Your task to perform on an android device: toggle data saver in the chrome app Image 0: 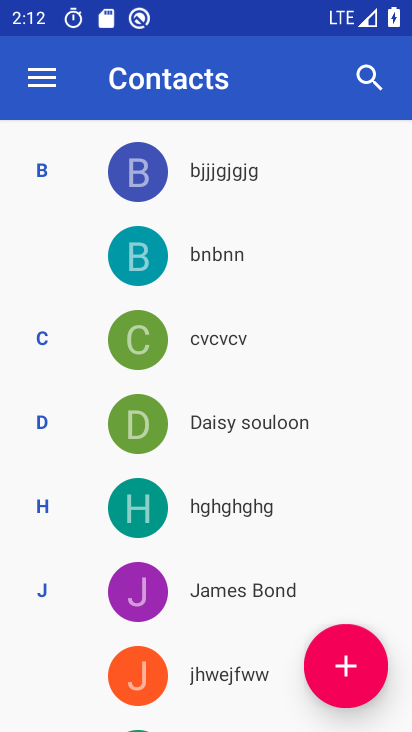
Step 0: press home button
Your task to perform on an android device: toggle data saver in the chrome app Image 1: 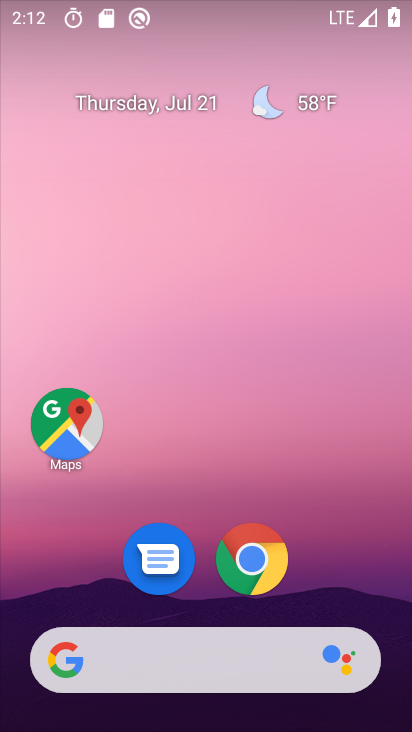
Step 1: drag from (347, 595) to (386, 118)
Your task to perform on an android device: toggle data saver in the chrome app Image 2: 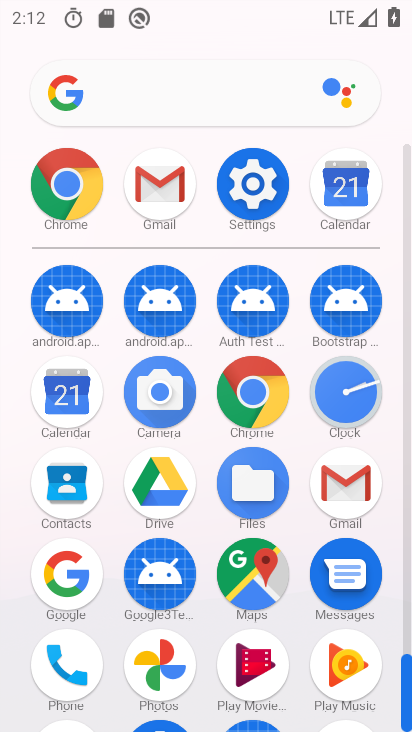
Step 2: click (267, 387)
Your task to perform on an android device: toggle data saver in the chrome app Image 3: 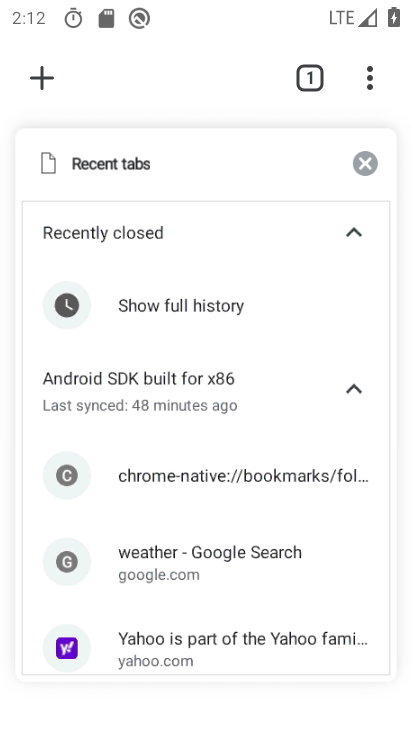
Step 3: press back button
Your task to perform on an android device: toggle data saver in the chrome app Image 4: 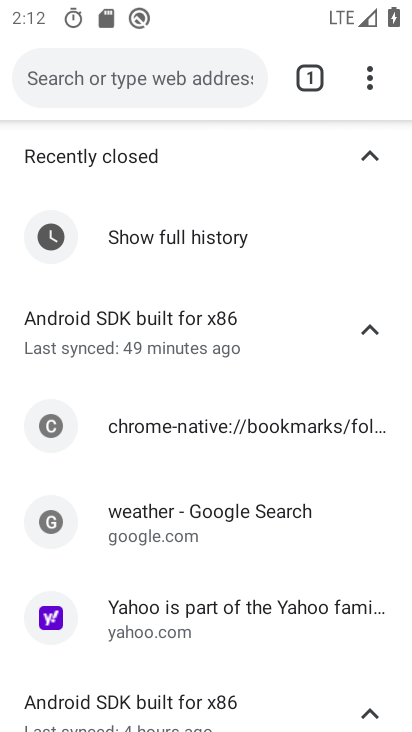
Step 4: click (369, 87)
Your task to perform on an android device: toggle data saver in the chrome app Image 5: 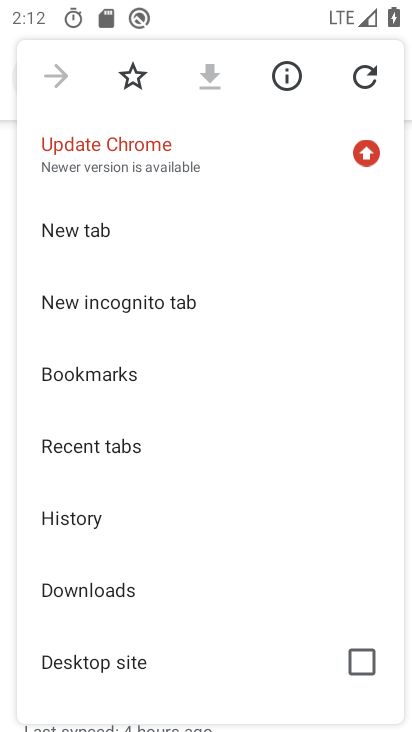
Step 5: drag from (287, 390) to (291, 273)
Your task to perform on an android device: toggle data saver in the chrome app Image 6: 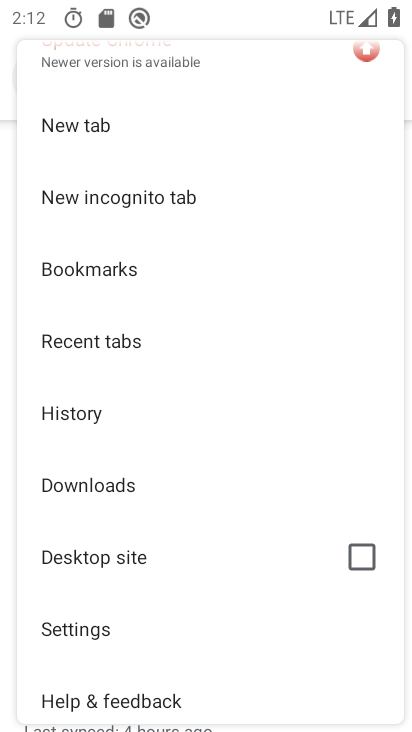
Step 6: drag from (292, 397) to (295, 283)
Your task to perform on an android device: toggle data saver in the chrome app Image 7: 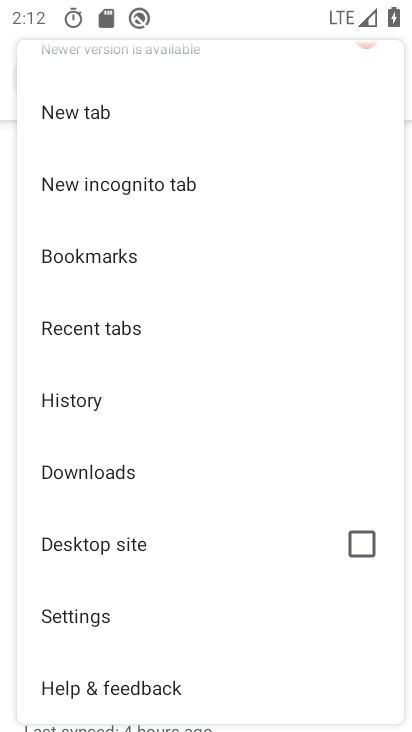
Step 7: click (142, 619)
Your task to perform on an android device: toggle data saver in the chrome app Image 8: 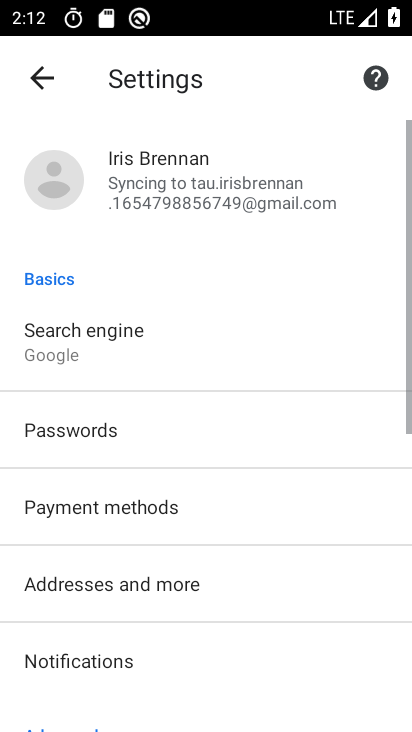
Step 8: drag from (262, 542) to (282, 430)
Your task to perform on an android device: toggle data saver in the chrome app Image 9: 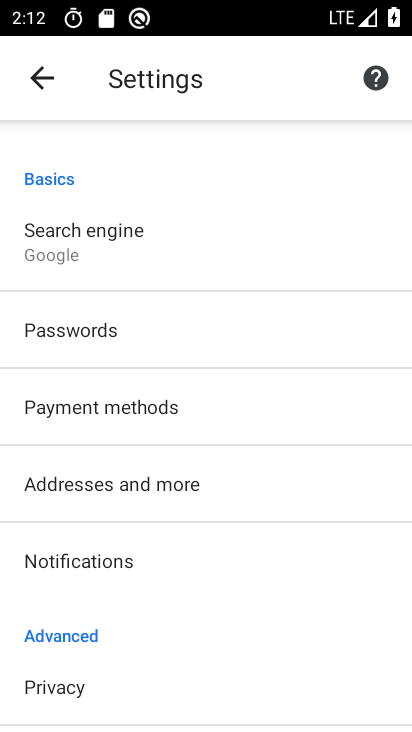
Step 9: drag from (282, 539) to (299, 431)
Your task to perform on an android device: toggle data saver in the chrome app Image 10: 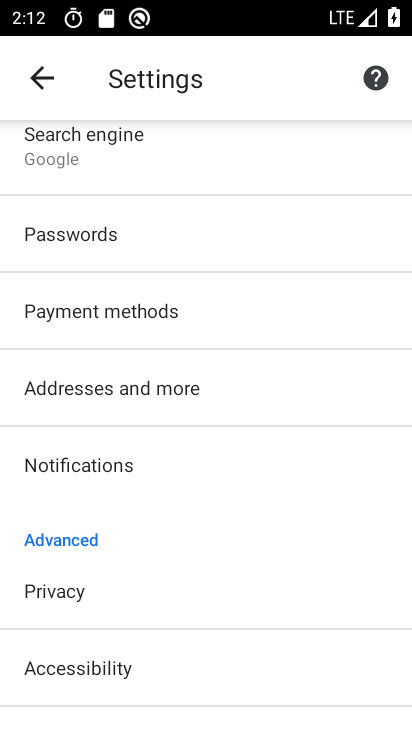
Step 10: drag from (295, 543) to (299, 468)
Your task to perform on an android device: toggle data saver in the chrome app Image 11: 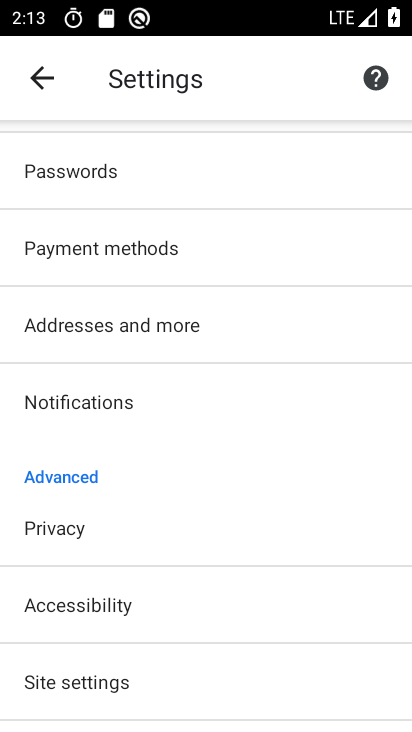
Step 11: drag from (288, 570) to (294, 483)
Your task to perform on an android device: toggle data saver in the chrome app Image 12: 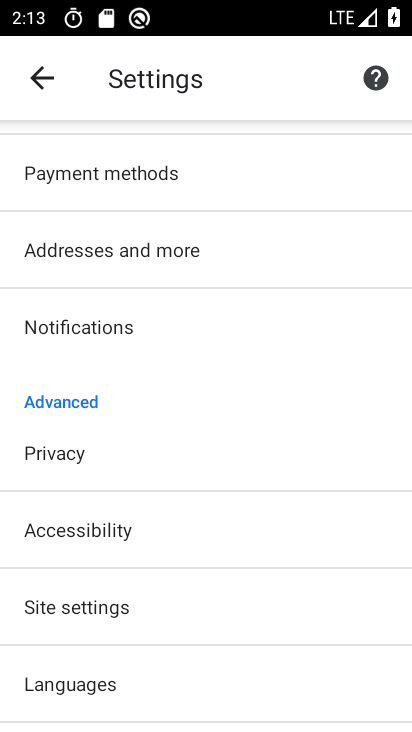
Step 12: drag from (291, 569) to (287, 477)
Your task to perform on an android device: toggle data saver in the chrome app Image 13: 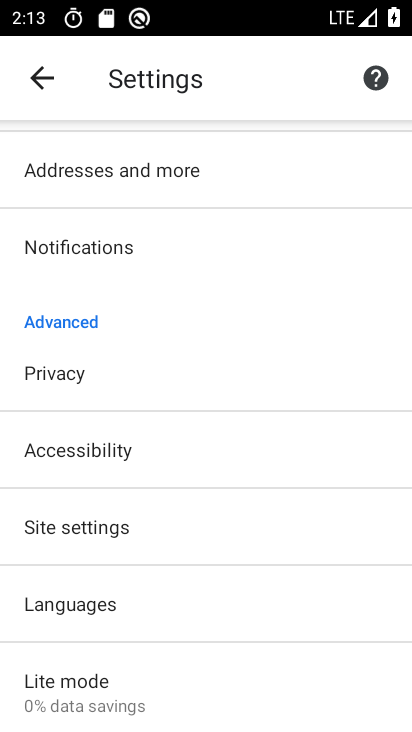
Step 13: drag from (277, 591) to (280, 427)
Your task to perform on an android device: toggle data saver in the chrome app Image 14: 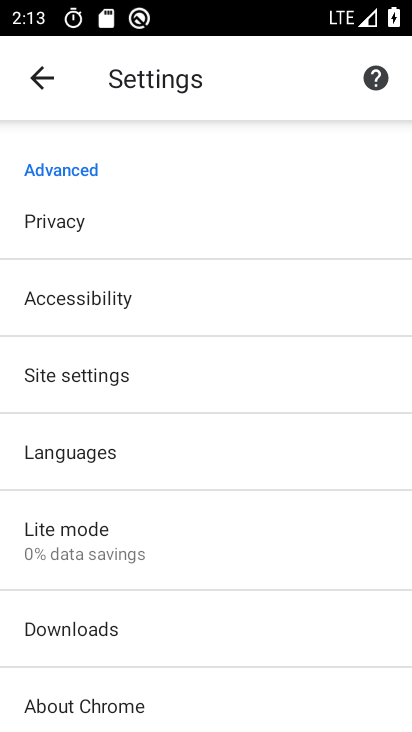
Step 14: drag from (278, 577) to (280, 468)
Your task to perform on an android device: toggle data saver in the chrome app Image 15: 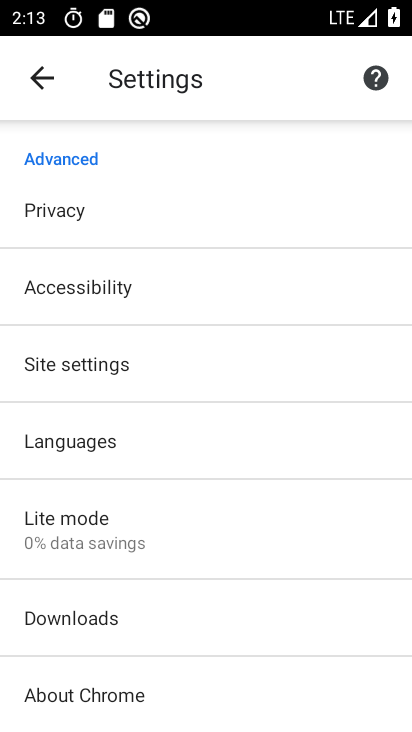
Step 15: click (273, 539)
Your task to perform on an android device: toggle data saver in the chrome app Image 16: 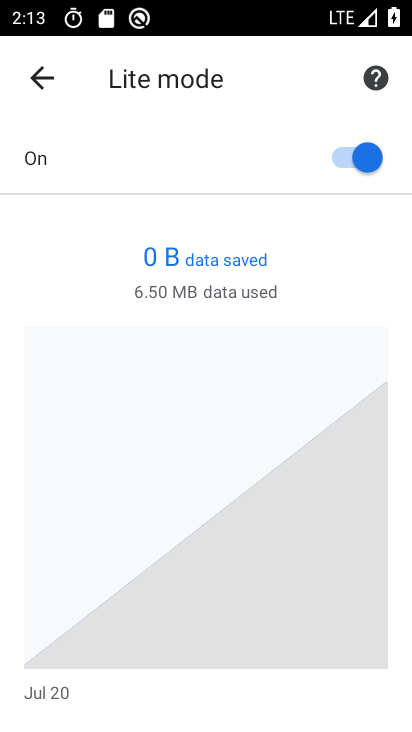
Step 16: click (369, 167)
Your task to perform on an android device: toggle data saver in the chrome app Image 17: 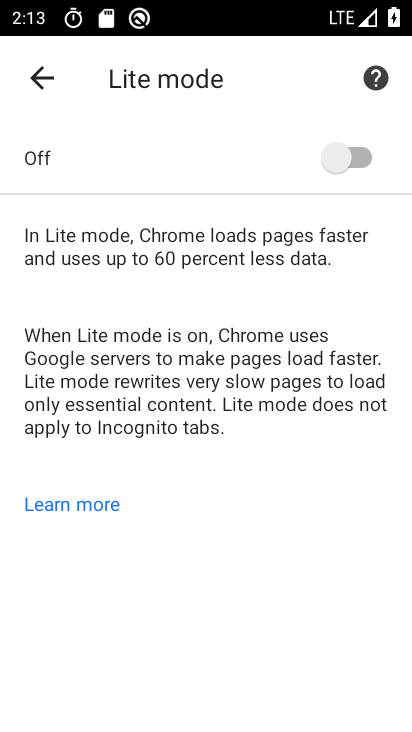
Step 17: task complete